Your task to perform on an android device: toggle data saver in the chrome app Image 0: 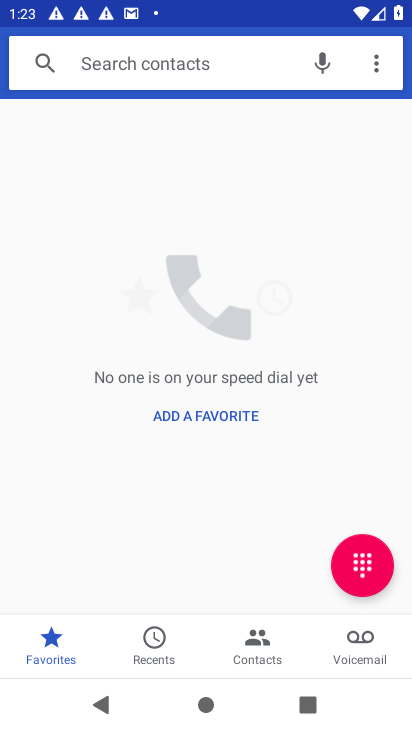
Step 0: press home button
Your task to perform on an android device: toggle data saver in the chrome app Image 1: 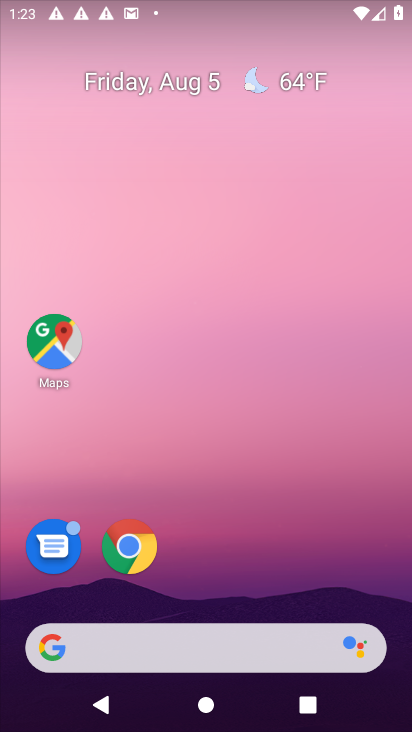
Step 1: drag from (213, 593) to (260, 30)
Your task to perform on an android device: toggle data saver in the chrome app Image 2: 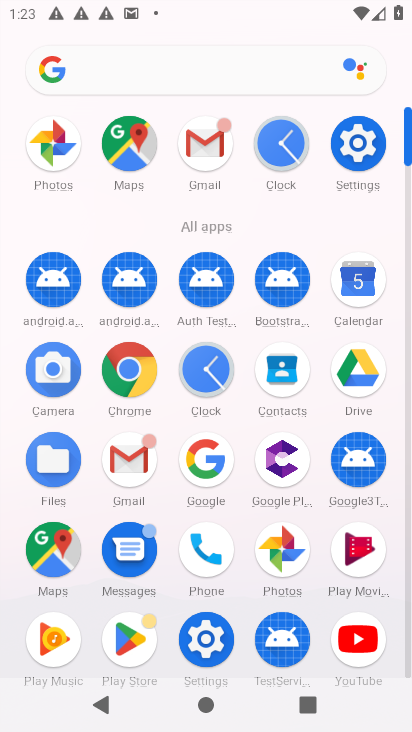
Step 2: click (126, 370)
Your task to perform on an android device: toggle data saver in the chrome app Image 3: 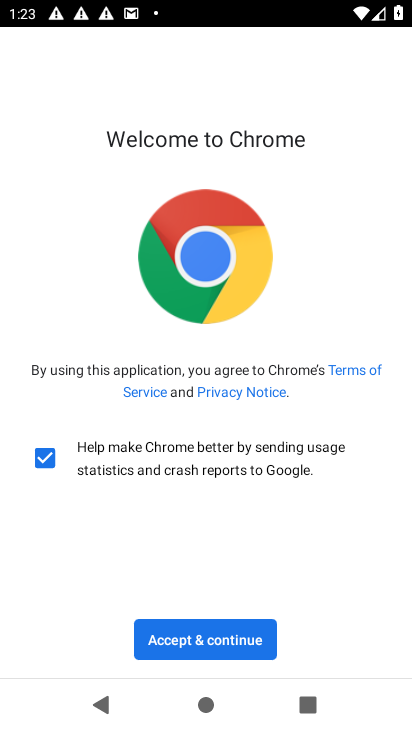
Step 3: click (199, 638)
Your task to perform on an android device: toggle data saver in the chrome app Image 4: 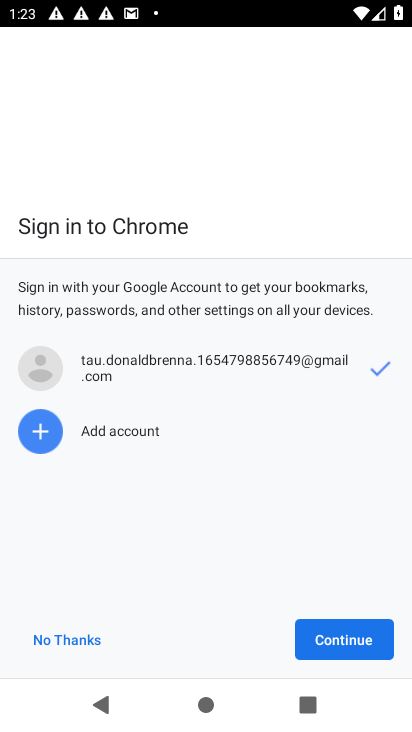
Step 4: click (343, 635)
Your task to perform on an android device: toggle data saver in the chrome app Image 5: 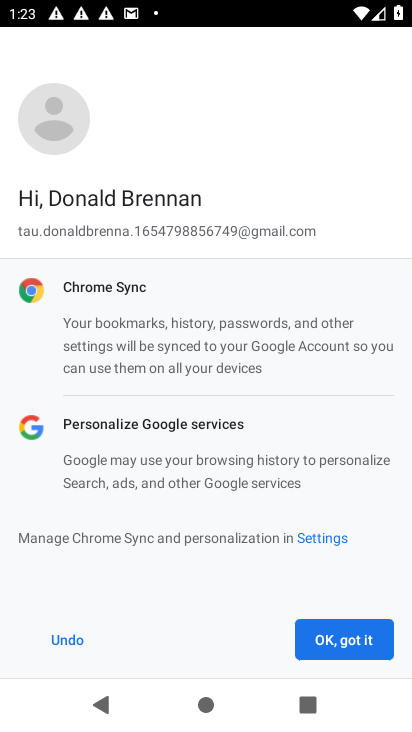
Step 5: click (343, 635)
Your task to perform on an android device: toggle data saver in the chrome app Image 6: 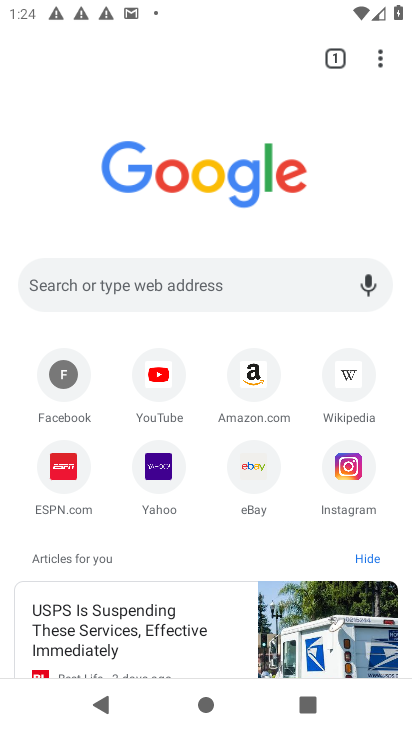
Step 6: click (383, 59)
Your task to perform on an android device: toggle data saver in the chrome app Image 7: 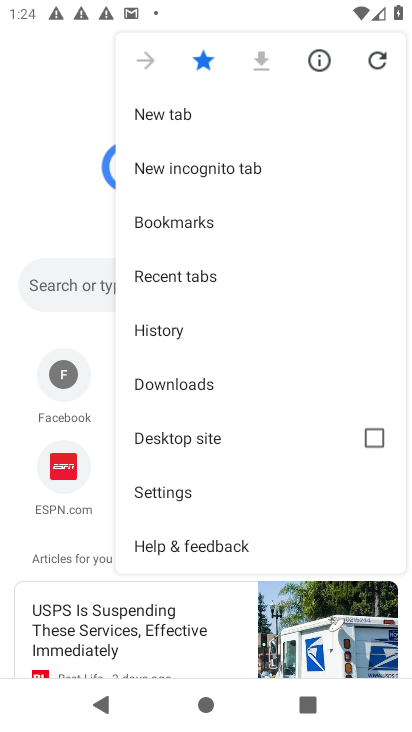
Step 7: click (174, 484)
Your task to perform on an android device: toggle data saver in the chrome app Image 8: 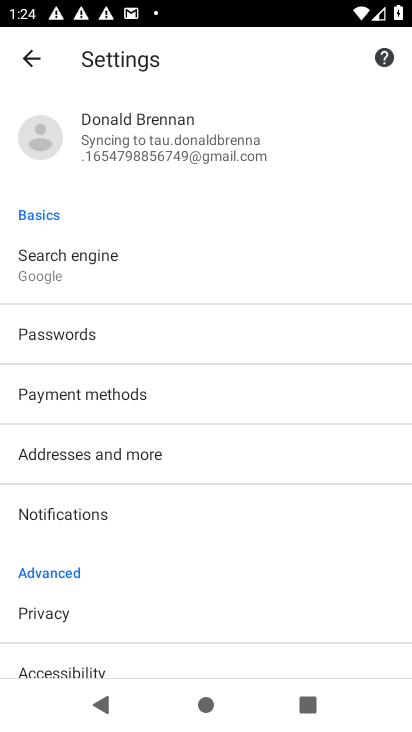
Step 8: drag from (161, 639) to (187, 106)
Your task to perform on an android device: toggle data saver in the chrome app Image 9: 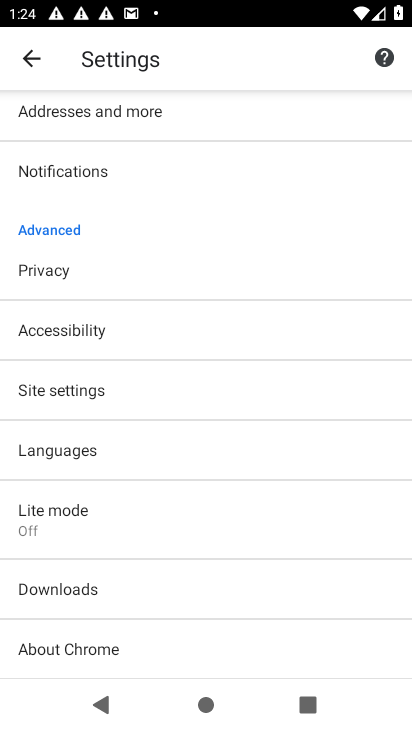
Step 9: click (73, 518)
Your task to perform on an android device: toggle data saver in the chrome app Image 10: 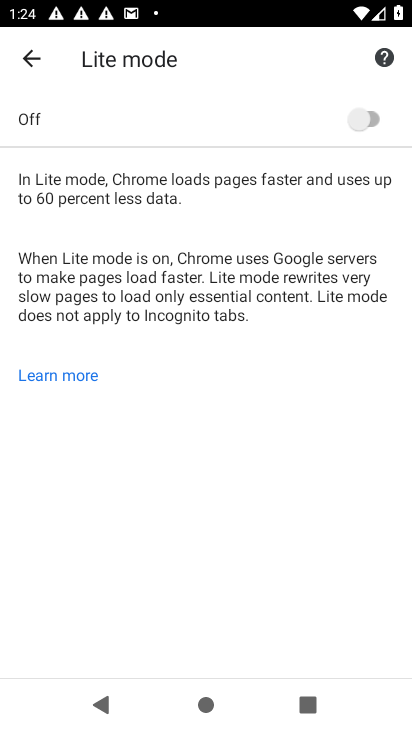
Step 10: click (361, 117)
Your task to perform on an android device: toggle data saver in the chrome app Image 11: 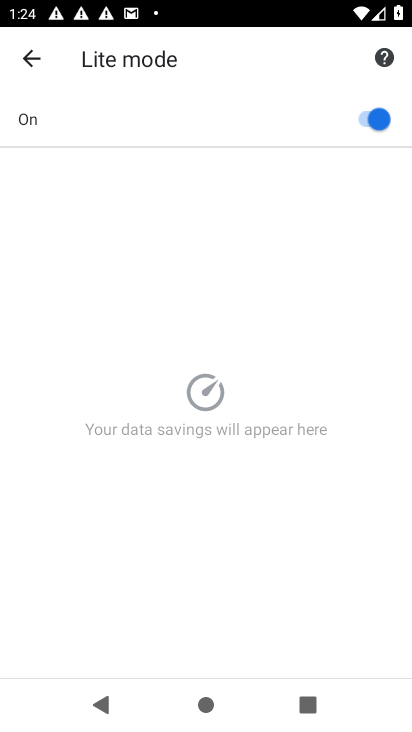
Step 11: task complete